Your task to perform on an android device: Open Wikipedia Image 0: 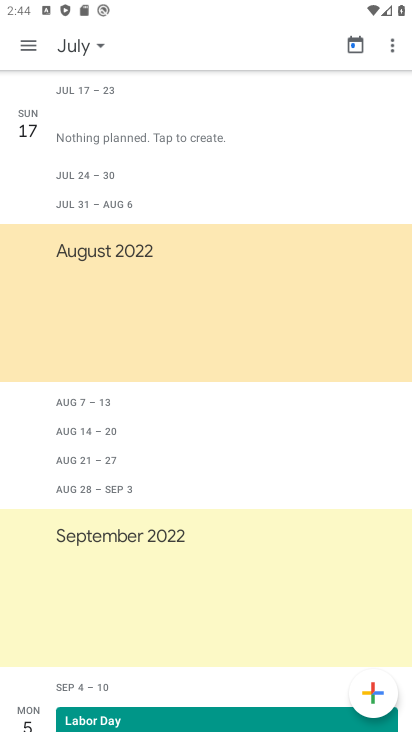
Step 0: press home button
Your task to perform on an android device: Open Wikipedia Image 1: 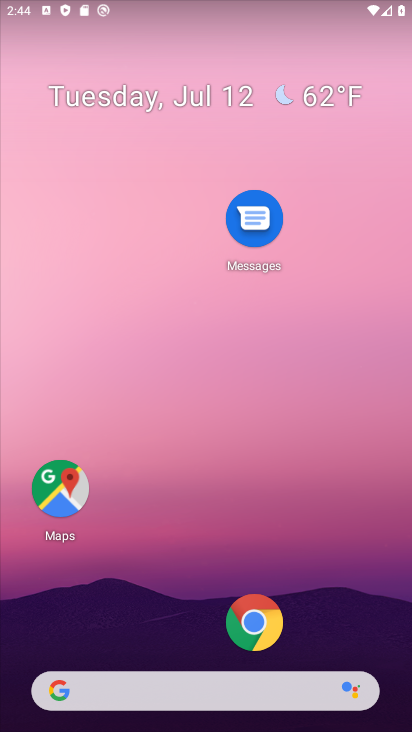
Step 1: click (250, 612)
Your task to perform on an android device: Open Wikipedia Image 2: 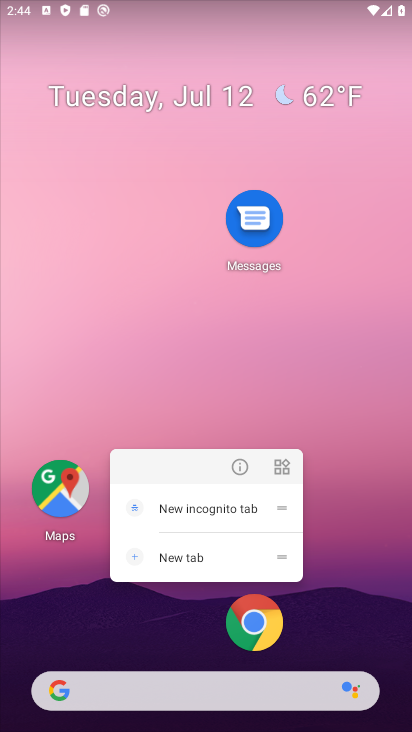
Step 2: click (247, 616)
Your task to perform on an android device: Open Wikipedia Image 3: 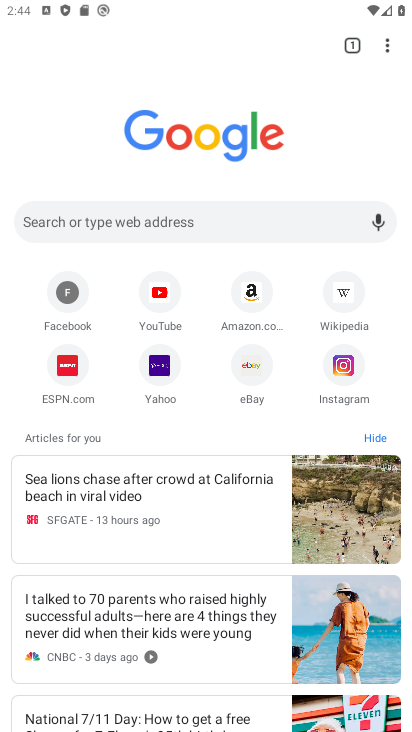
Step 3: click (341, 284)
Your task to perform on an android device: Open Wikipedia Image 4: 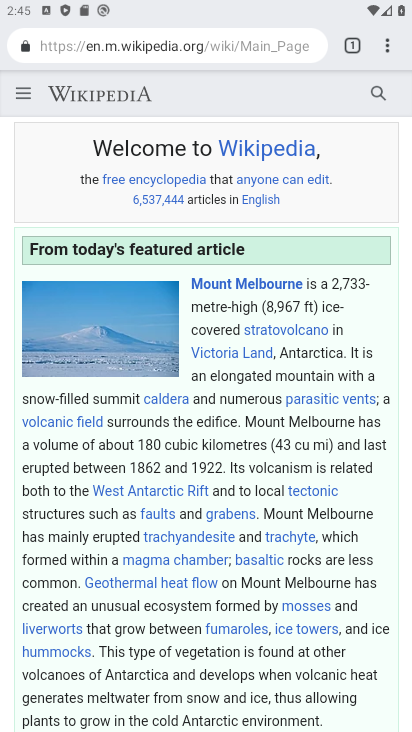
Step 4: task complete